Your task to perform on an android device: Find coffee shops on Maps Image 0: 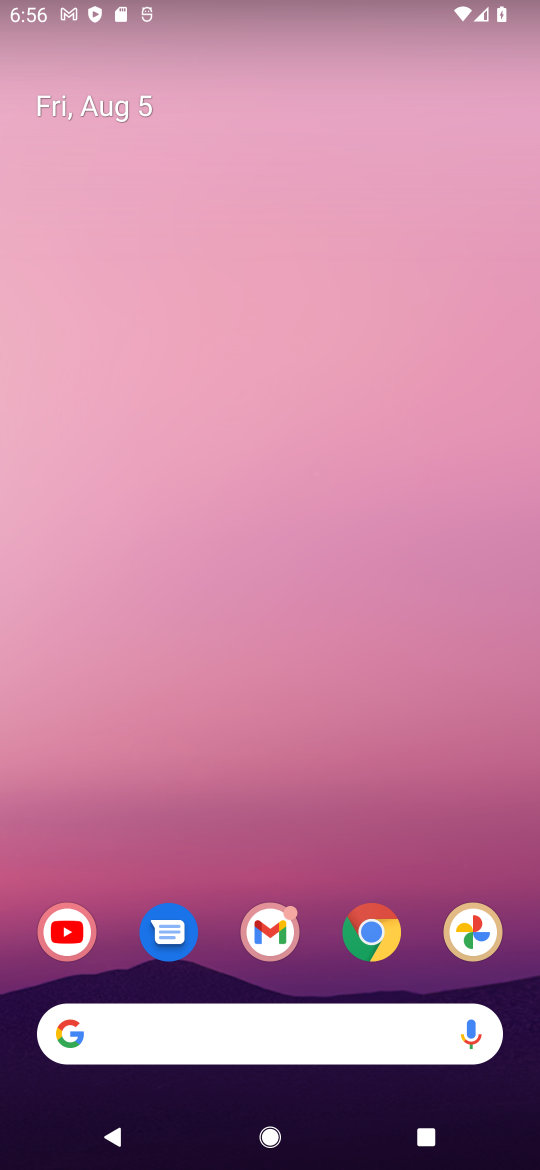
Step 0: drag from (372, 489) to (389, 164)
Your task to perform on an android device: Find coffee shops on Maps Image 1: 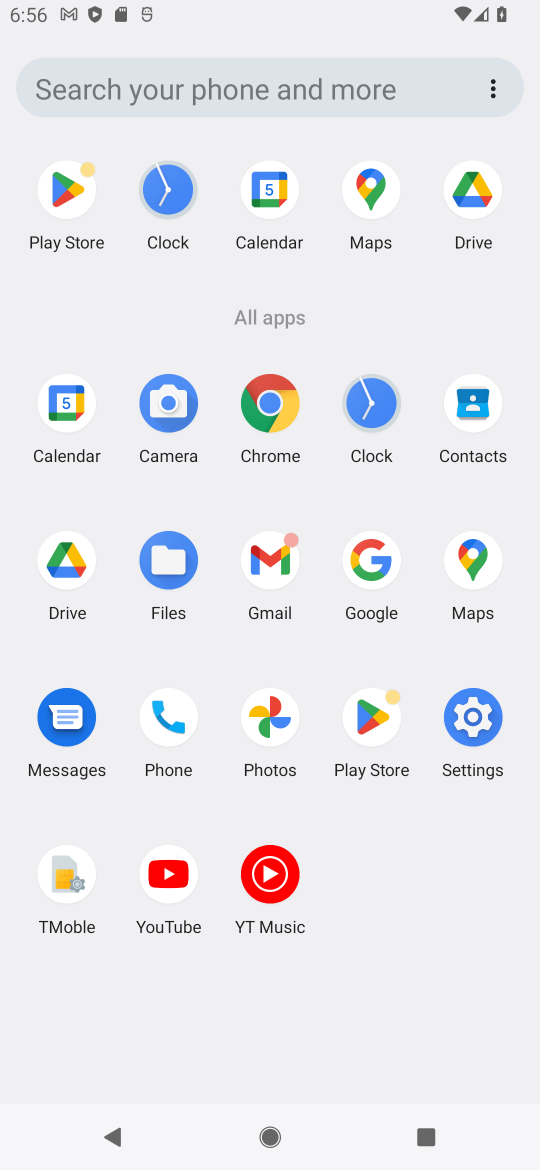
Step 1: click (375, 189)
Your task to perform on an android device: Find coffee shops on Maps Image 2: 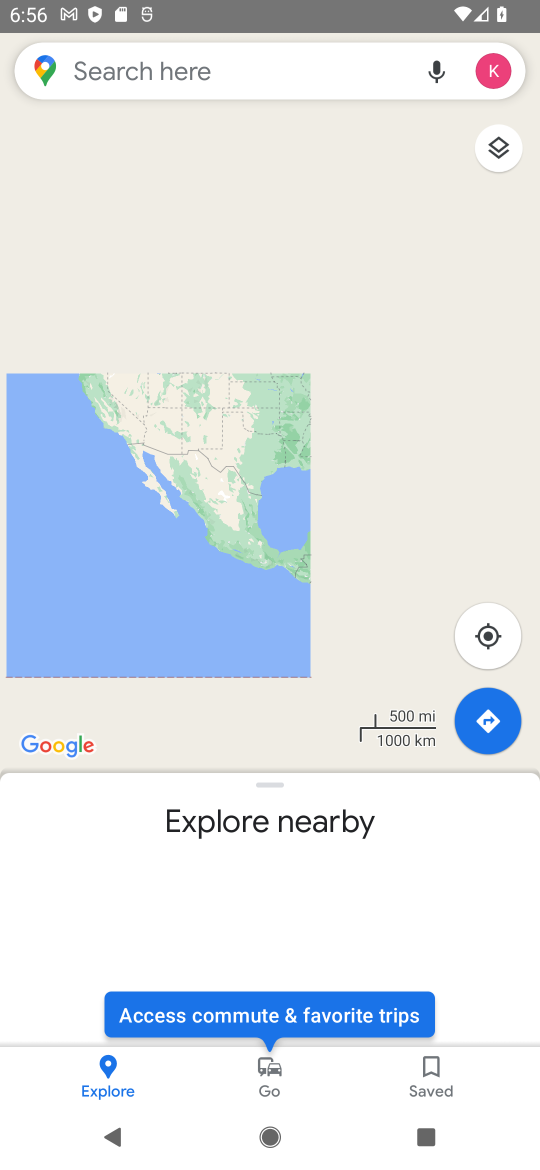
Step 2: click (286, 75)
Your task to perform on an android device: Find coffee shops on Maps Image 3: 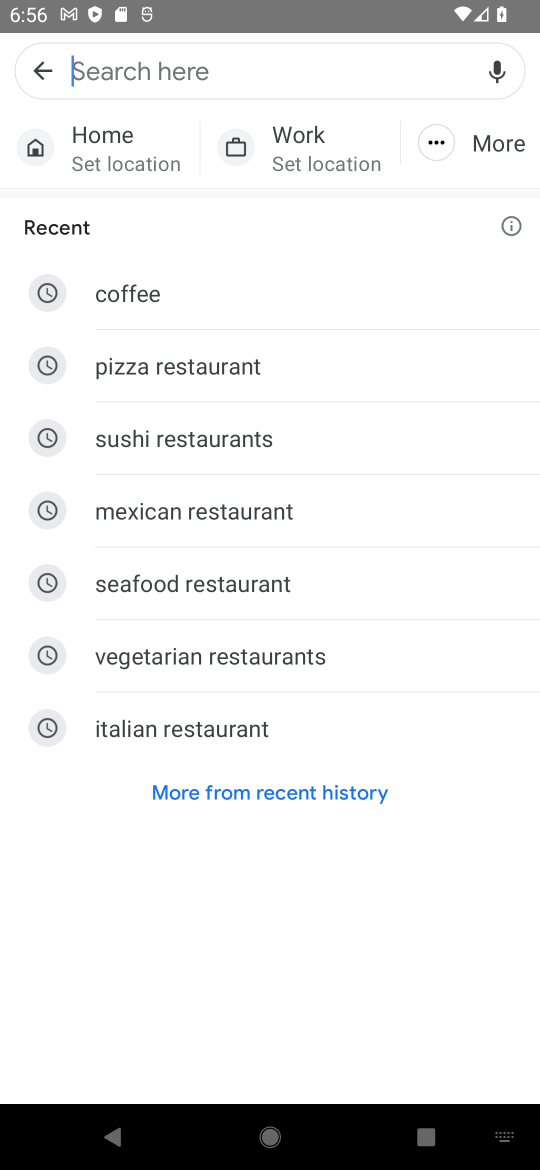
Step 3: type "coffee shops"
Your task to perform on an android device: Find coffee shops on Maps Image 4: 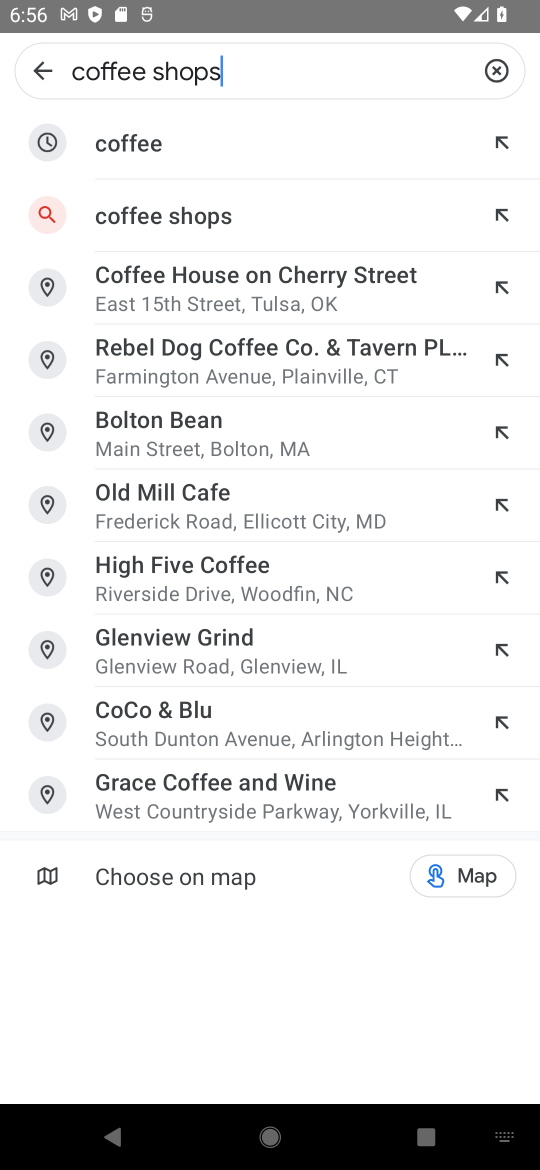
Step 4: click (239, 214)
Your task to perform on an android device: Find coffee shops on Maps Image 5: 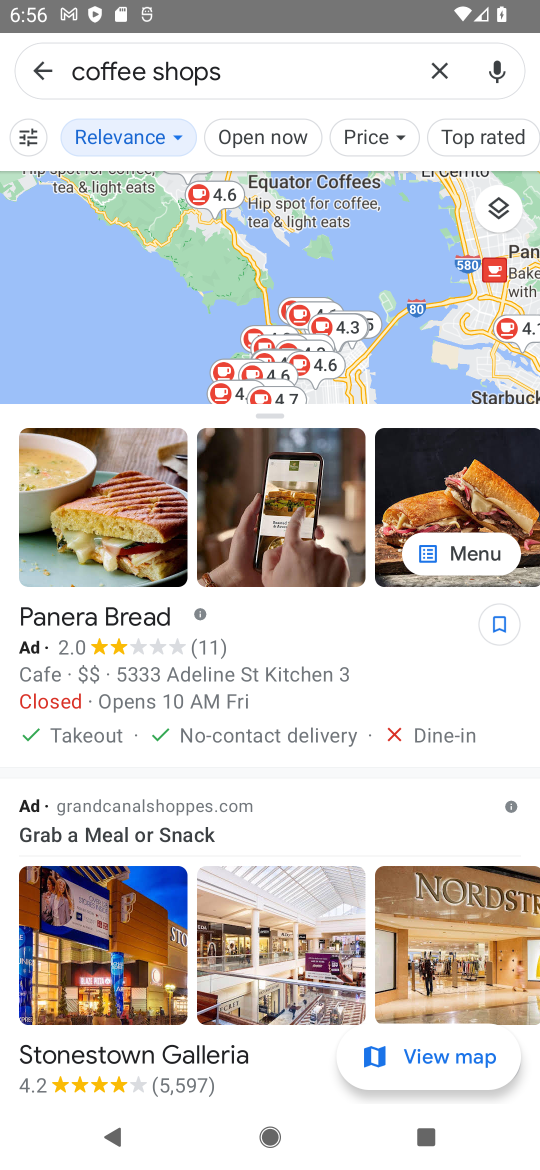
Step 5: task complete